Your task to perform on an android device: Open Chrome and go to settings Image 0: 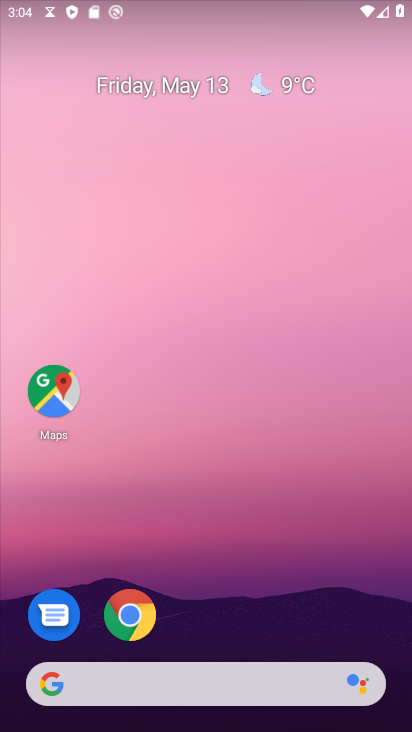
Step 0: click (129, 617)
Your task to perform on an android device: Open Chrome and go to settings Image 1: 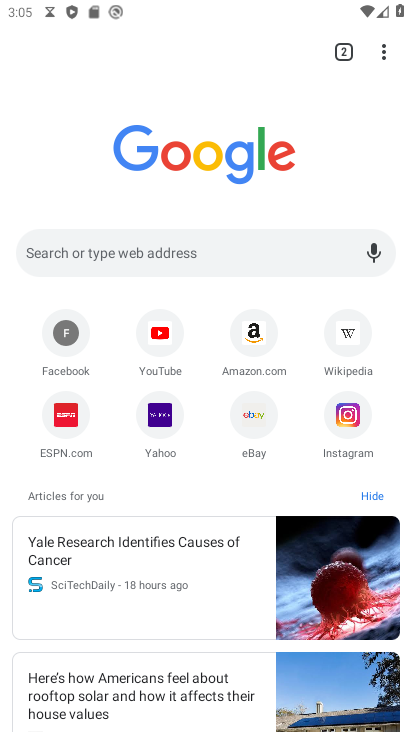
Step 1: click (383, 58)
Your task to perform on an android device: Open Chrome and go to settings Image 2: 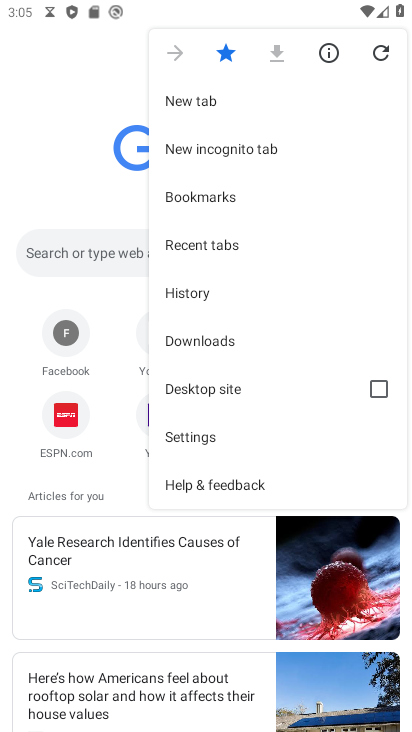
Step 2: click (189, 433)
Your task to perform on an android device: Open Chrome and go to settings Image 3: 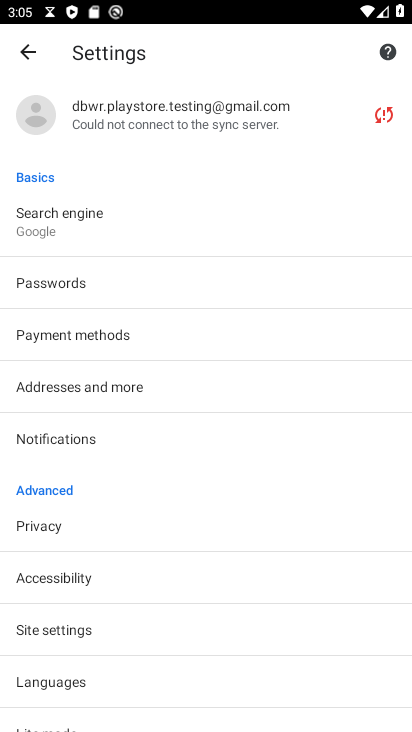
Step 3: task complete